Your task to perform on an android device: Open privacy settings Image 0: 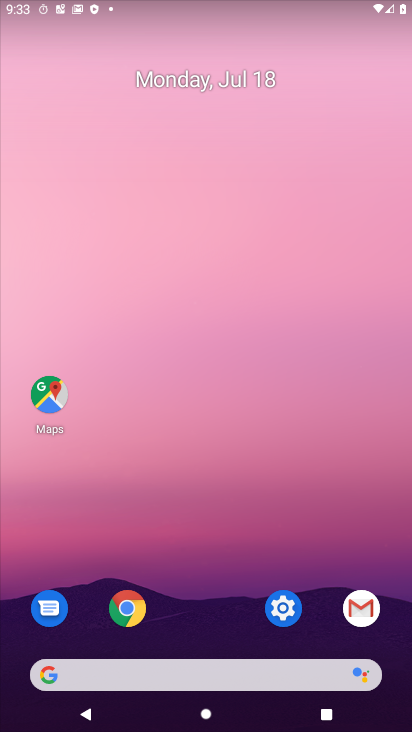
Step 0: click (294, 599)
Your task to perform on an android device: Open privacy settings Image 1: 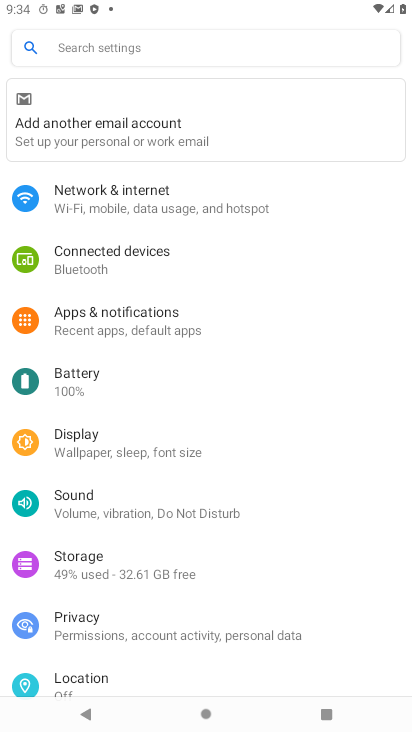
Step 1: click (137, 621)
Your task to perform on an android device: Open privacy settings Image 2: 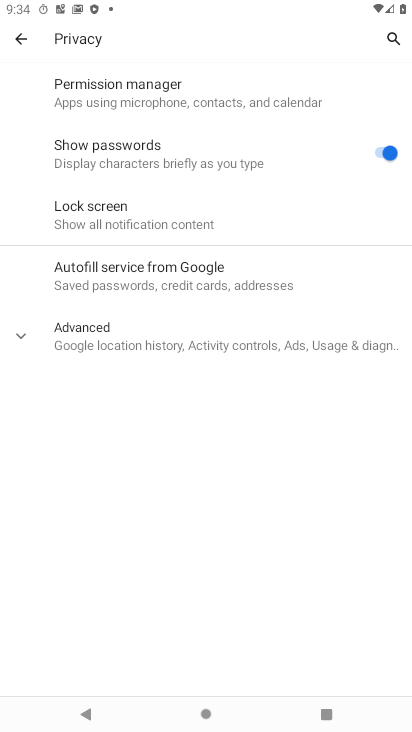
Step 2: task complete